Your task to perform on an android device: check google app version Image 0: 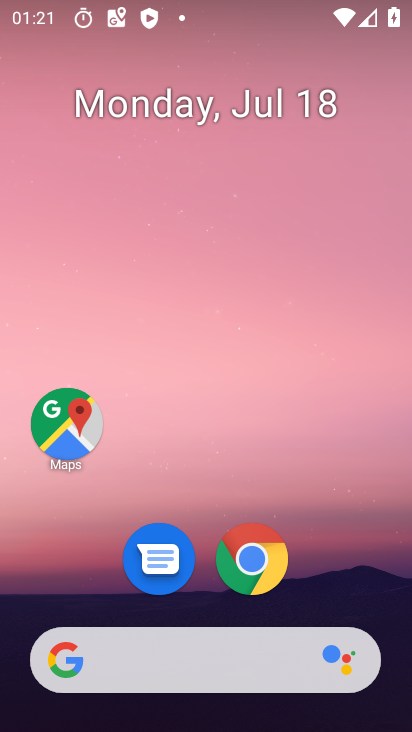
Step 0: drag from (119, 600) to (214, 0)
Your task to perform on an android device: check google app version Image 1: 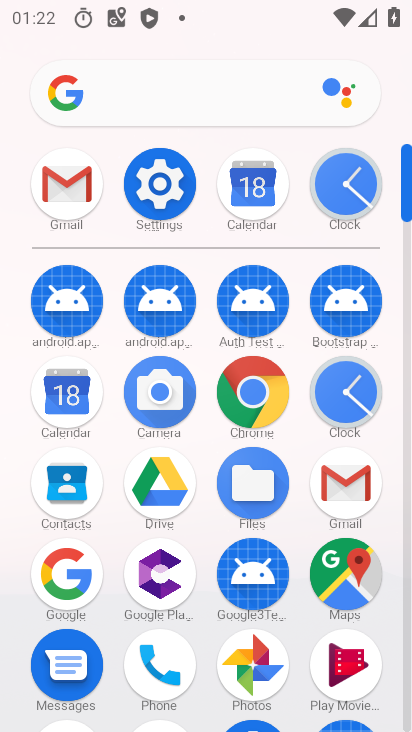
Step 1: click (61, 584)
Your task to perform on an android device: check google app version Image 2: 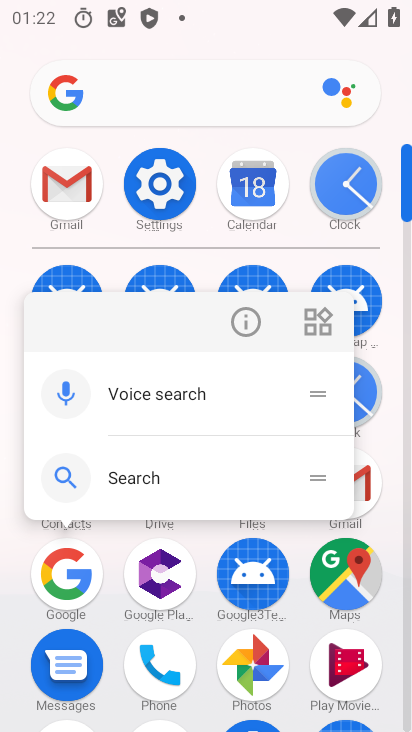
Step 2: click (245, 331)
Your task to perform on an android device: check google app version Image 3: 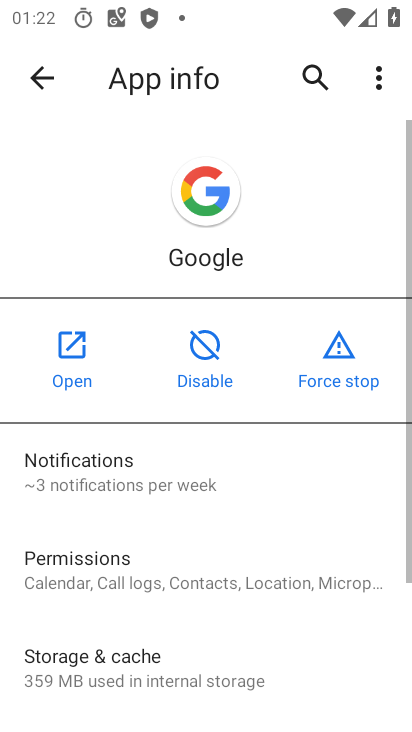
Step 3: drag from (150, 644) to (244, 18)
Your task to perform on an android device: check google app version Image 4: 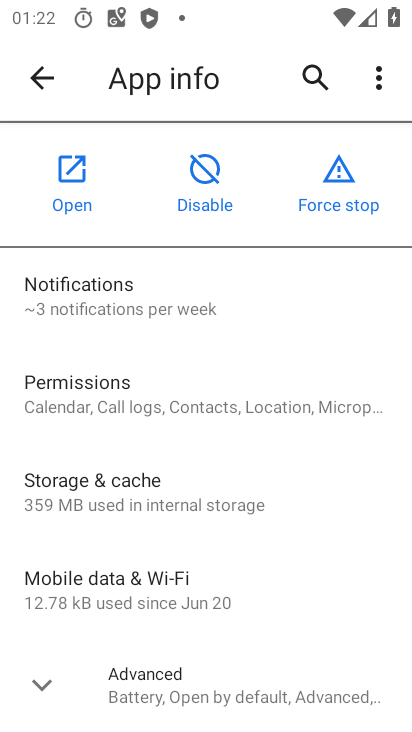
Step 4: click (162, 674)
Your task to perform on an android device: check google app version Image 5: 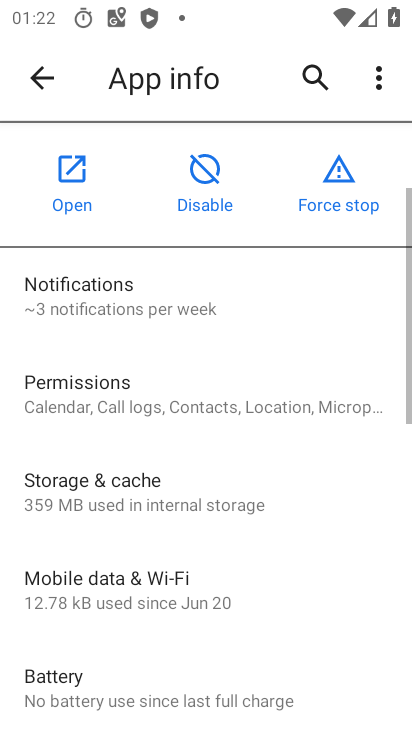
Step 5: task complete